Your task to perform on an android device: What's the weather going to be tomorrow? Image 0: 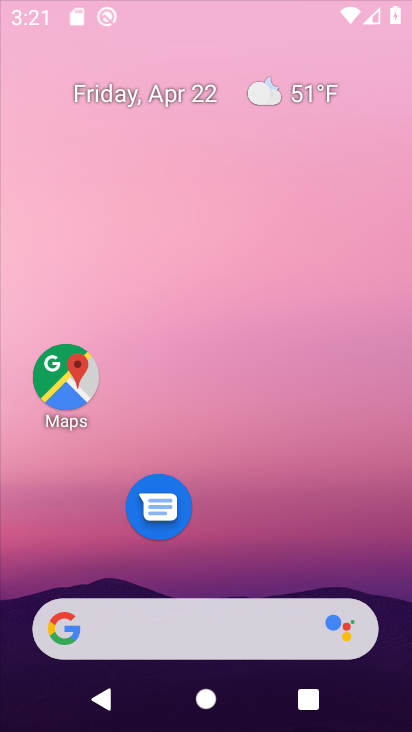
Step 0: drag from (166, 422) to (217, 35)
Your task to perform on an android device: What's the weather going to be tomorrow? Image 1: 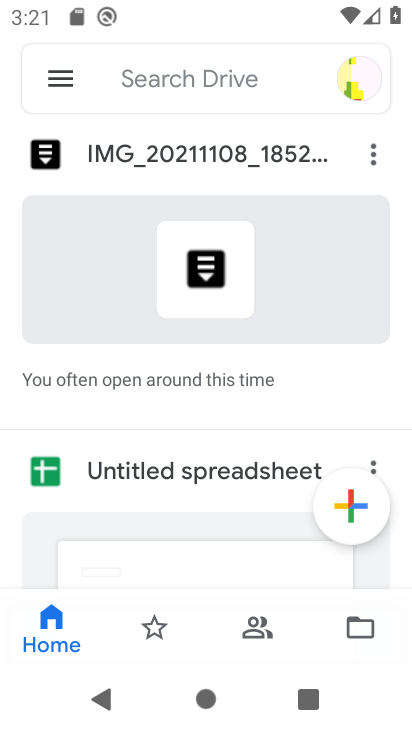
Step 1: press back button
Your task to perform on an android device: What's the weather going to be tomorrow? Image 2: 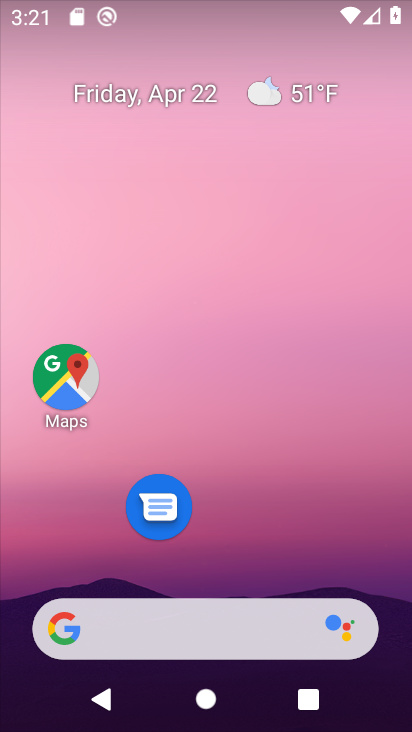
Step 2: drag from (230, 478) to (261, 53)
Your task to perform on an android device: What's the weather going to be tomorrow? Image 3: 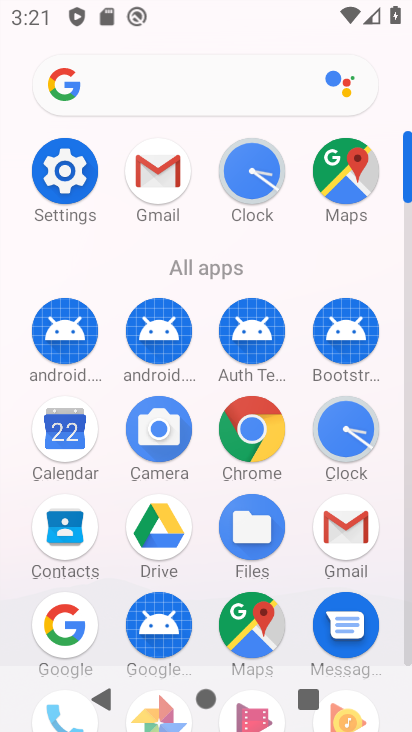
Step 3: drag from (205, 542) to (268, 138)
Your task to perform on an android device: What's the weather going to be tomorrow? Image 4: 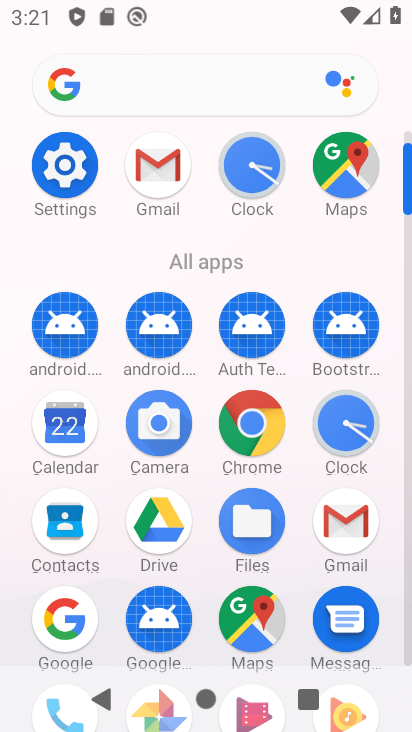
Step 4: drag from (244, 566) to (276, 100)
Your task to perform on an android device: What's the weather going to be tomorrow? Image 5: 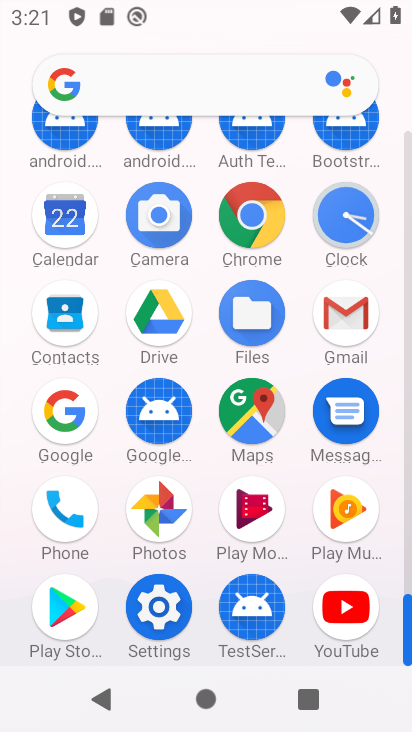
Step 5: press back button
Your task to perform on an android device: What's the weather going to be tomorrow? Image 6: 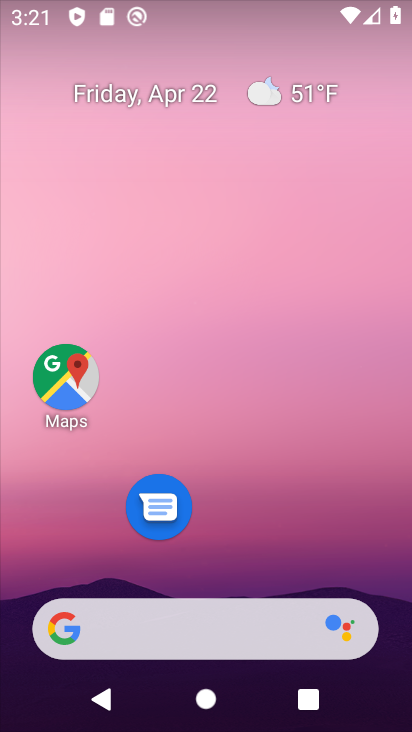
Step 6: click (285, 81)
Your task to perform on an android device: What's the weather going to be tomorrow? Image 7: 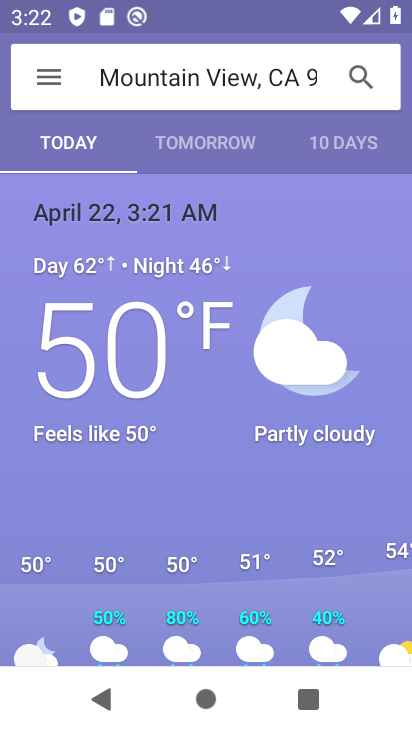
Step 7: click (197, 142)
Your task to perform on an android device: What's the weather going to be tomorrow? Image 8: 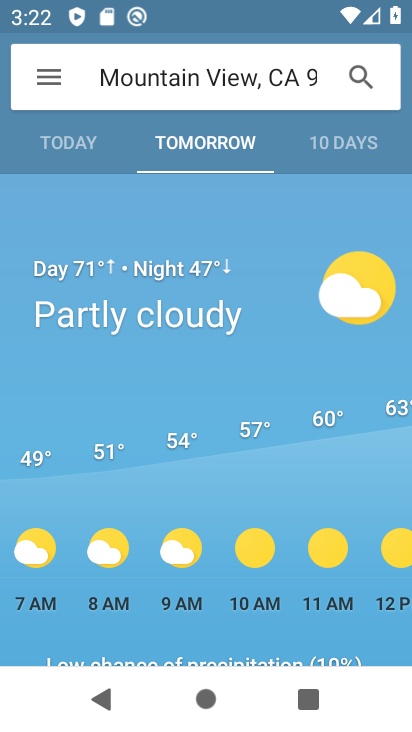
Step 8: task complete